Your task to perform on an android device: Open my contact list Image 0: 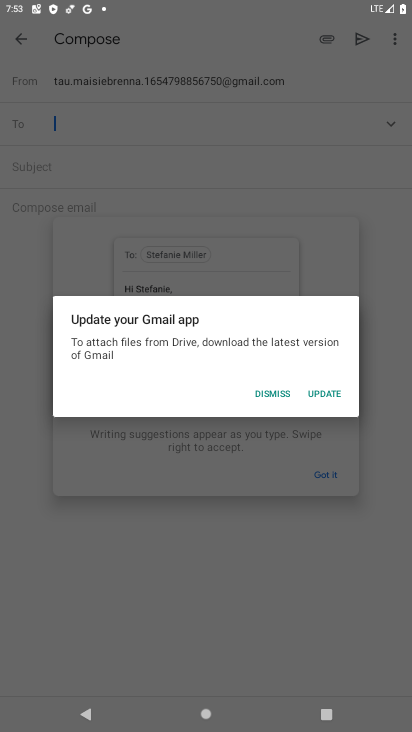
Step 0: click (266, 391)
Your task to perform on an android device: Open my contact list Image 1: 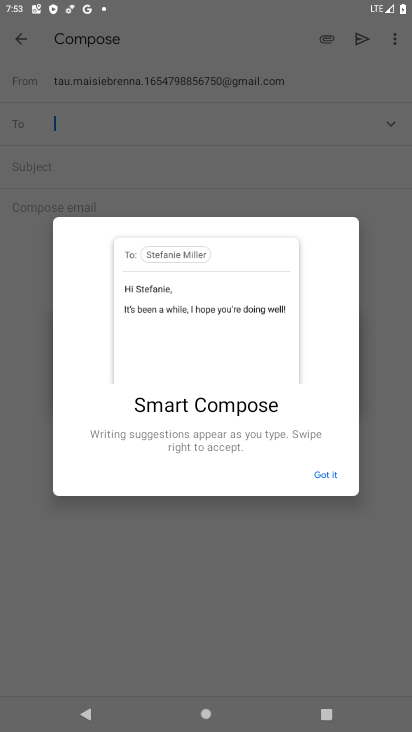
Step 1: click (321, 465)
Your task to perform on an android device: Open my contact list Image 2: 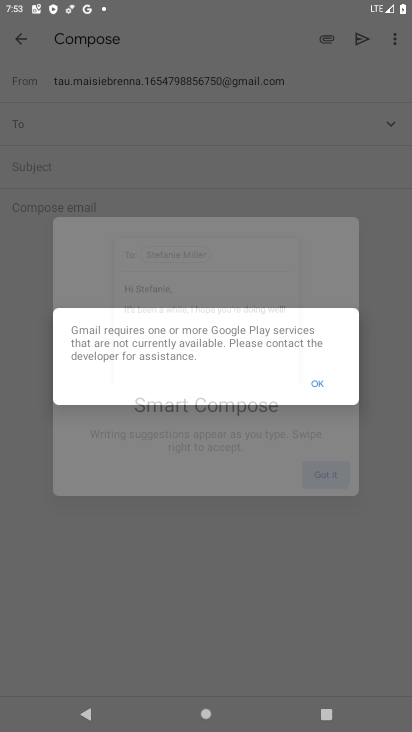
Step 2: click (327, 480)
Your task to perform on an android device: Open my contact list Image 3: 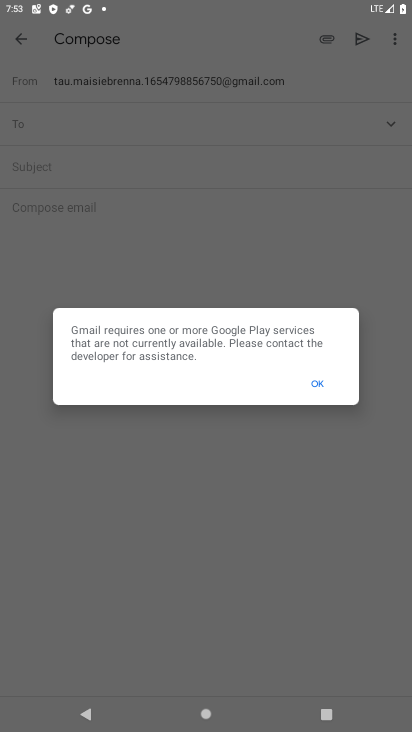
Step 3: click (327, 480)
Your task to perform on an android device: Open my contact list Image 4: 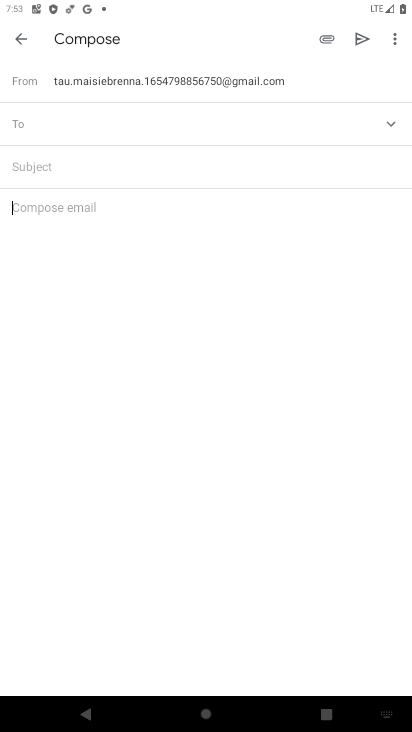
Step 4: click (13, 41)
Your task to perform on an android device: Open my contact list Image 5: 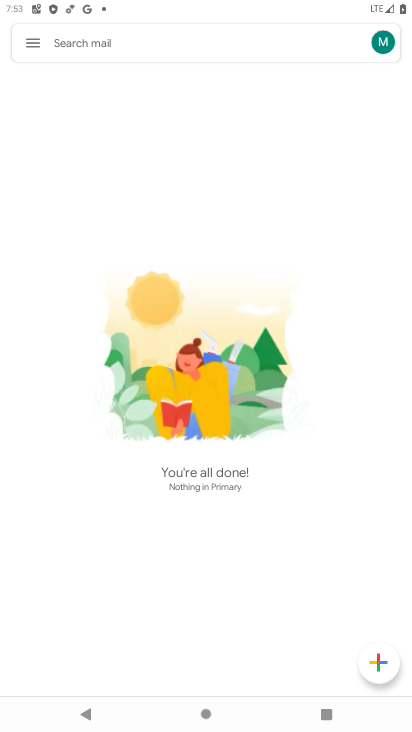
Step 5: press back button
Your task to perform on an android device: Open my contact list Image 6: 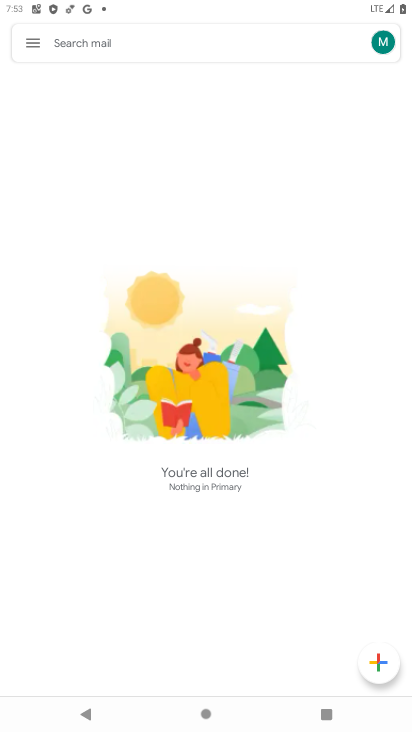
Step 6: press back button
Your task to perform on an android device: Open my contact list Image 7: 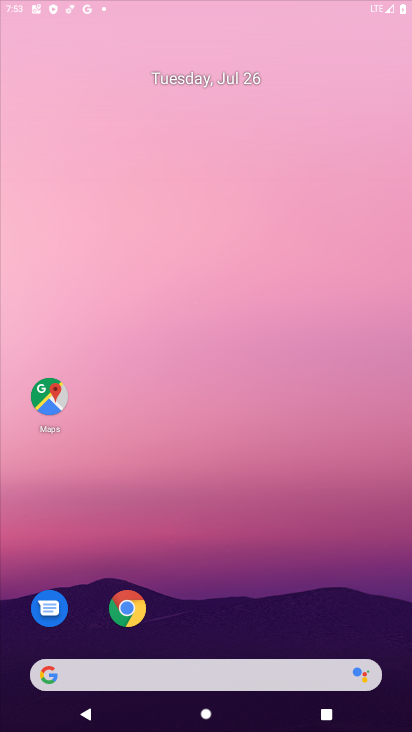
Step 7: press back button
Your task to perform on an android device: Open my contact list Image 8: 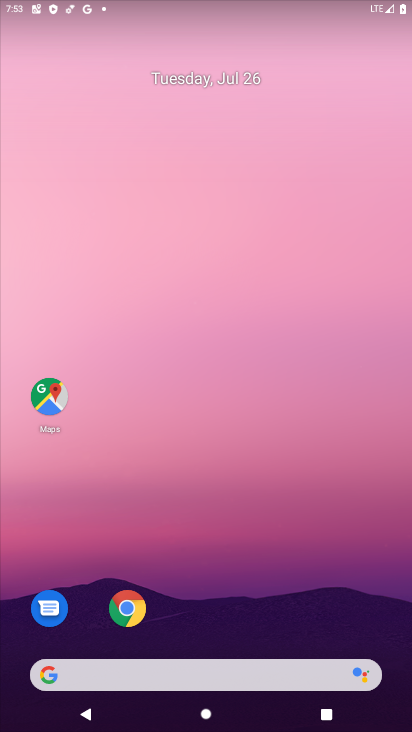
Step 8: drag from (246, 649) to (176, 141)
Your task to perform on an android device: Open my contact list Image 9: 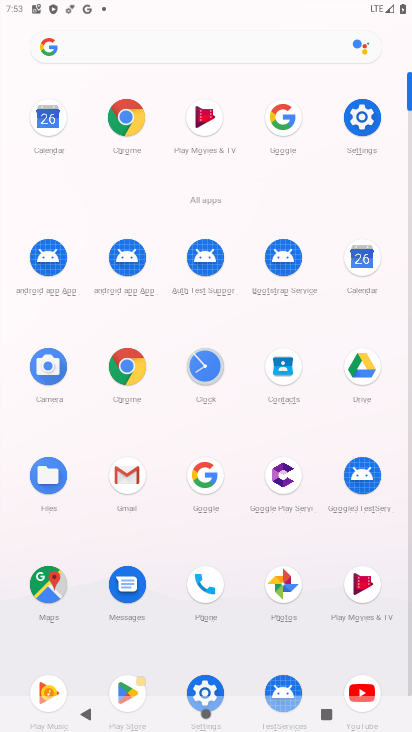
Step 9: click (278, 366)
Your task to perform on an android device: Open my contact list Image 10: 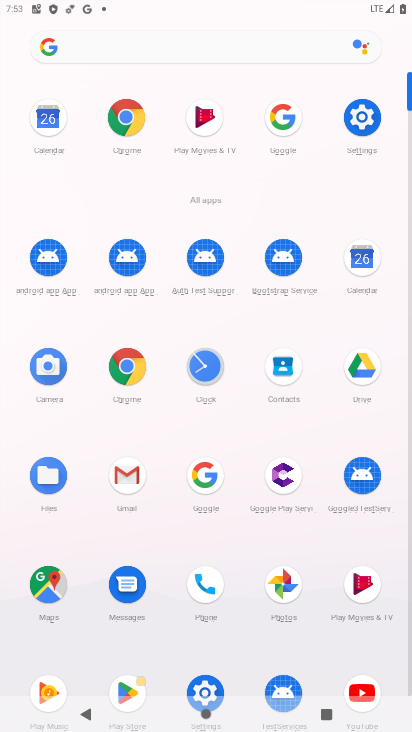
Step 10: click (278, 367)
Your task to perform on an android device: Open my contact list Image 11: 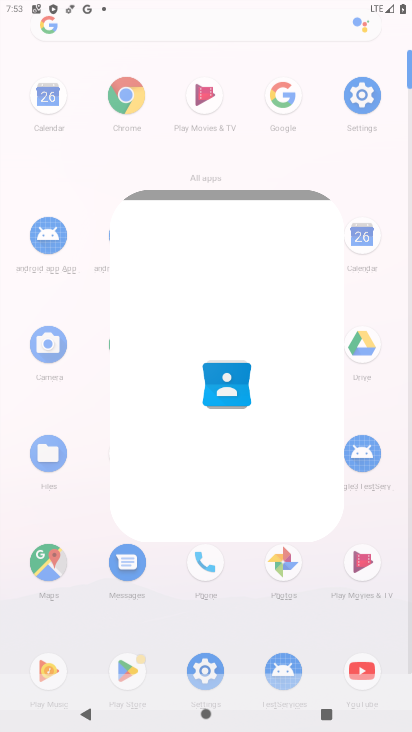
Step 11: click (278, 367)
Your task to perform on an android device: Open my contact list Image 12: 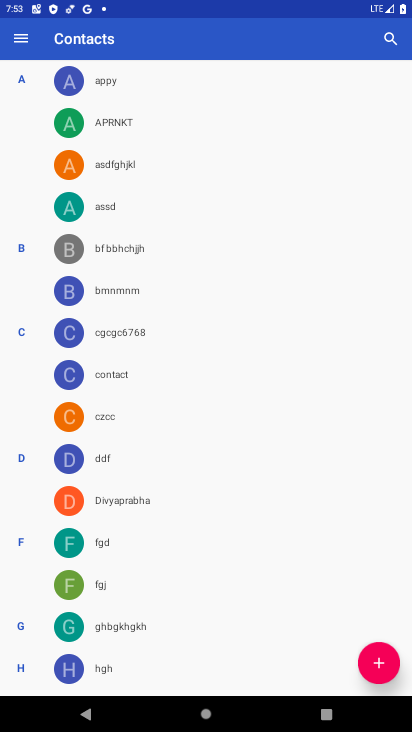
Step 12: drag from (129, 345) to (129, 173)
Your task to perform on an android device: Open my contact list Image 13: 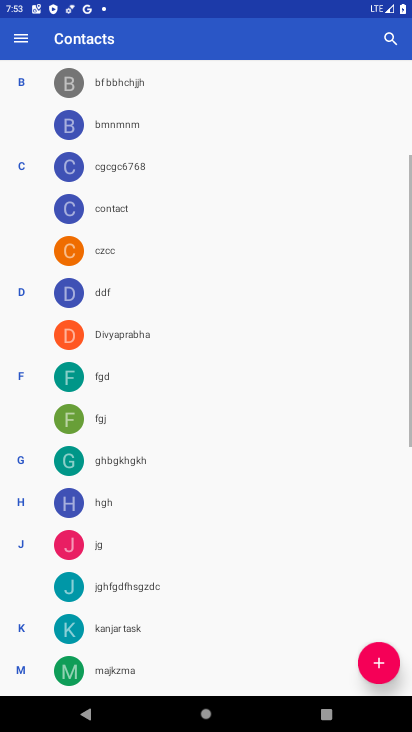
Step 13: drag from (174, 471) to (174, 192)
Your task to perform on an android device: Open my contact list Image 14: 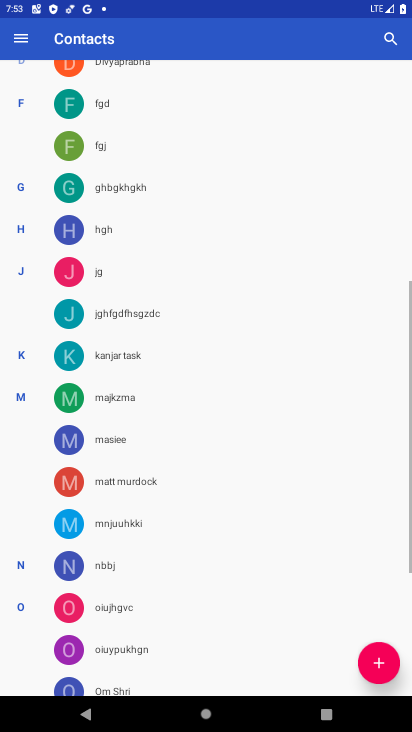
Step 14: drag from (141, 382) to (141, 221)
Your task to perform on an android device: Open my contact list Image 15: 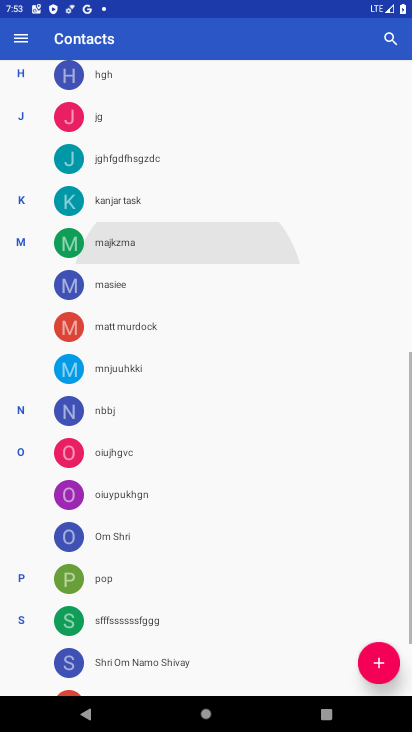
Step 15: drag from (104, 419) to (104, 274)
Your task to perform on an android device: Open my contact list Image 16: 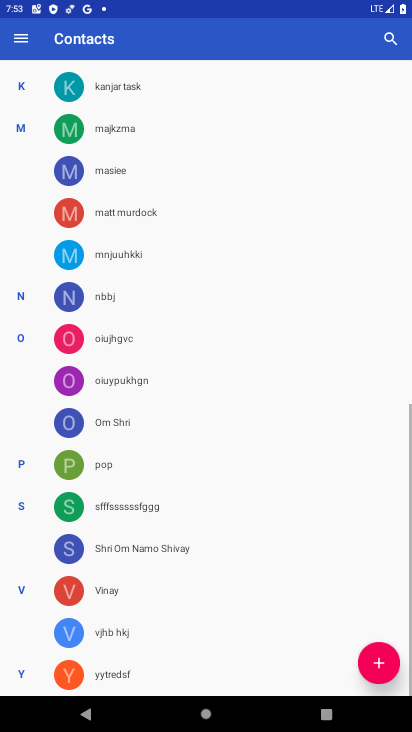
Step 16: drag from (151, 495) to (147, 272)
Your task to perform on an android device: Open my contact list Image 17: 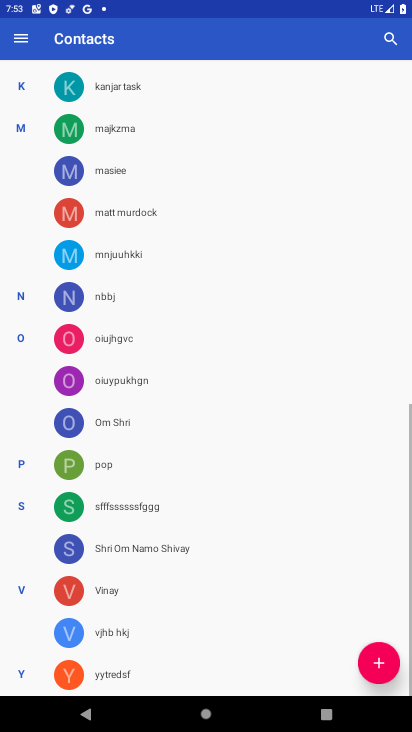
Step 17: click (168, 313)
Your task to perform on an android device: Open my contact list Image 18: 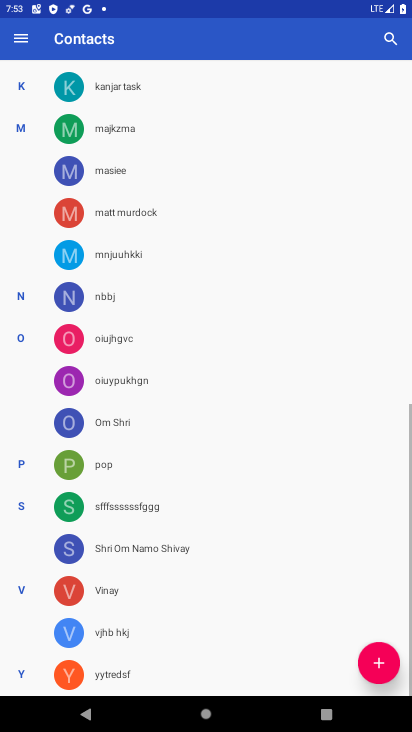
Step 18: click (146, 314)
Your task to perform on an android device: Open my contact list Image 19: 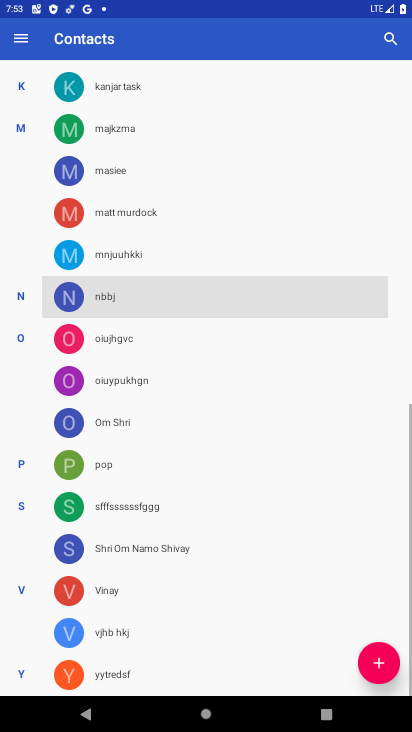
Step 19: task complete